Your task to perform on an android device: empty trash in google photos Image 0: 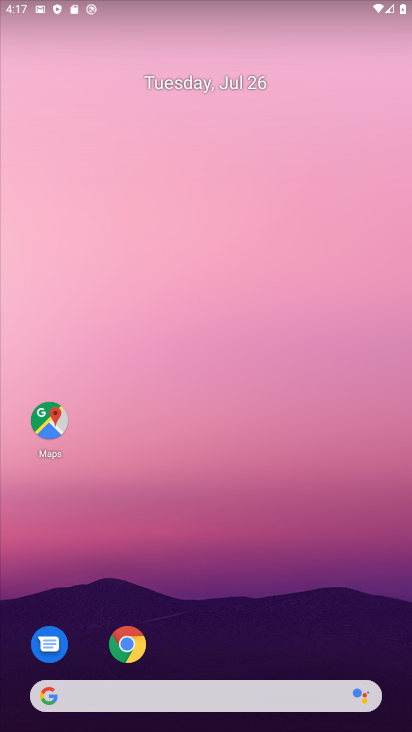
Step 0: drag from (266, 494) to (331, 60)
Your task to perform on an android device: empty trash in google photos Image 1: 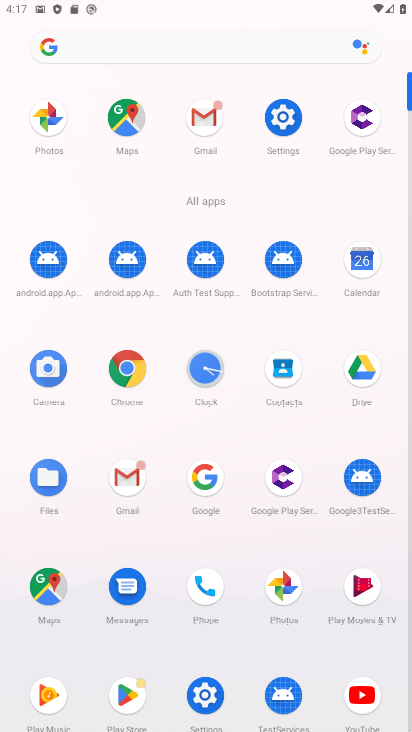
Step 1: click (284, 581)
Your task to perform on an android device: empty trash in google photos Image 2: 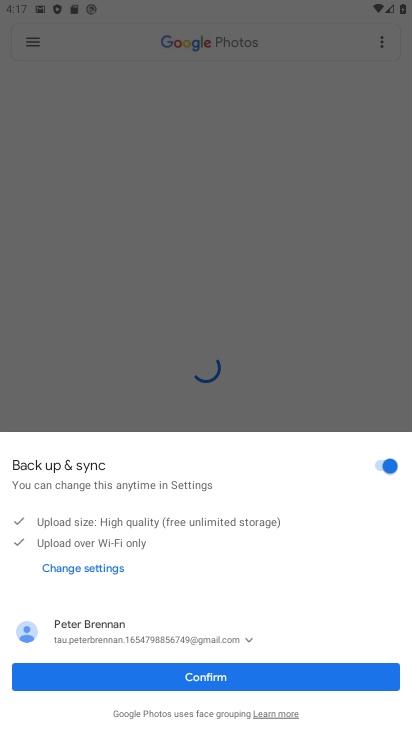
Step 2: click (122, 684)
Your task to perform on an android device: empty trash in google photos Image 3: 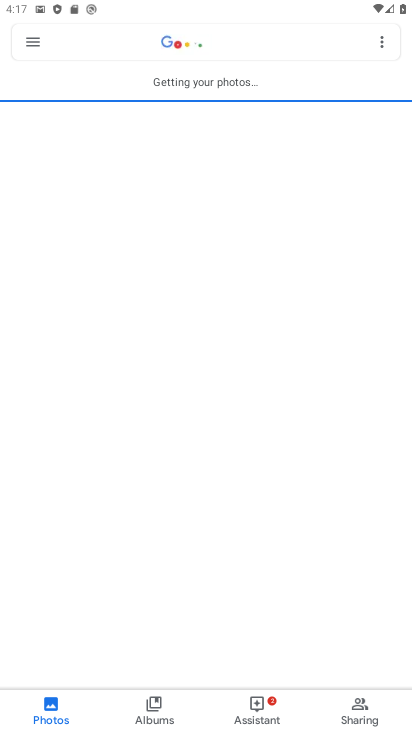
Step 3: click (28, 52)
Your task to perform on an android device: empty trash in google photos Image 4: 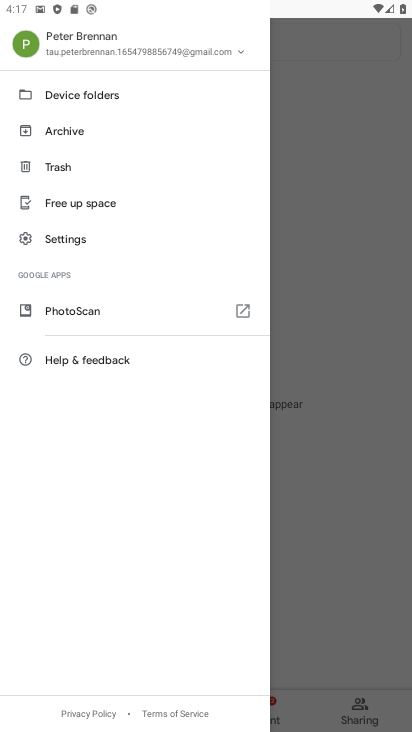
Step 4: click (76, 169)
Your task to perform on an android device: empty trash in google photos Image 5: 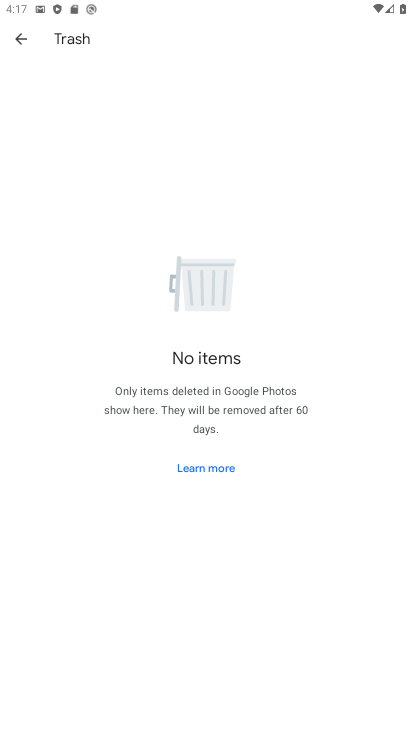
Step 5: task complete